Your task to perform on an android device: read, delete, or share a saved page in the chrome app Image 0: 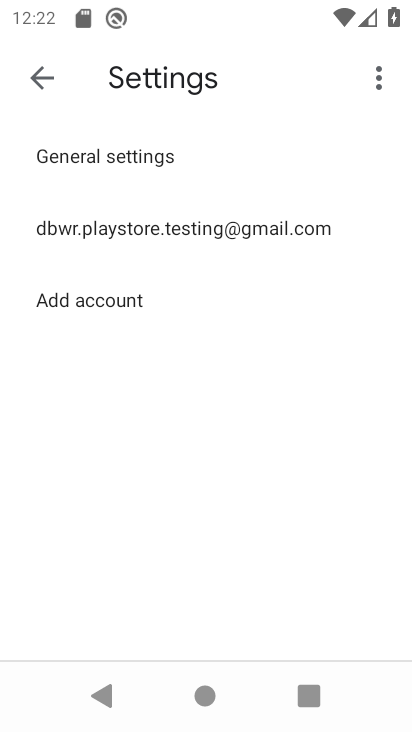
Step 0: press home button
Your task to perform on an android device: read, delete, or share a saved page in the chrome app Image 1: 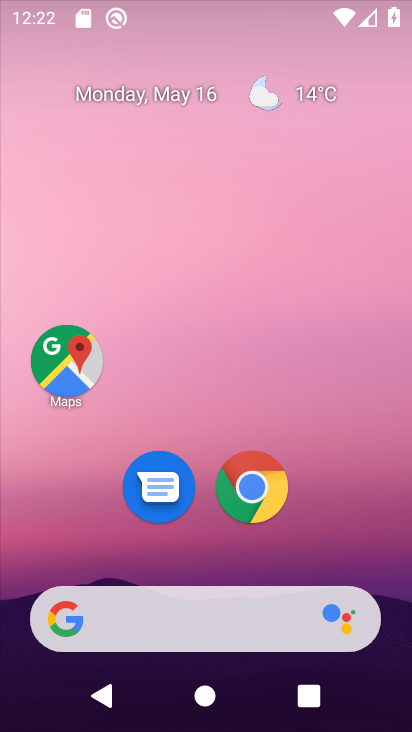
Step 1: drag from (128, 614) to (285, 17)
Your task to perform on an android device: read, delete, or share a saved page in the chrome app Image 2: 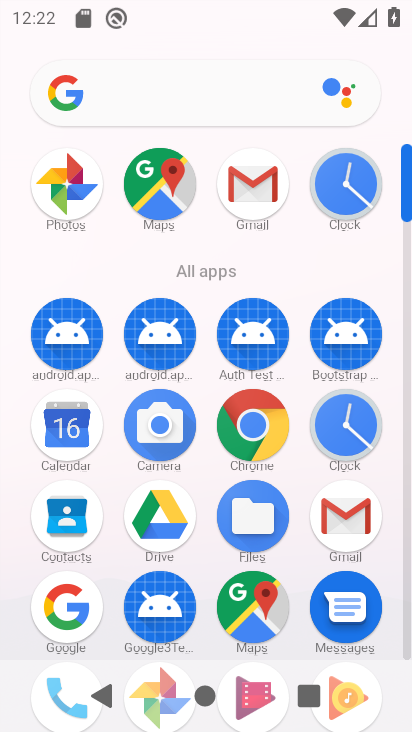
Step 2: click (247, 414)
Your task to perform on an android device: read, delete, or share a saved page in the chrome app Image 3: 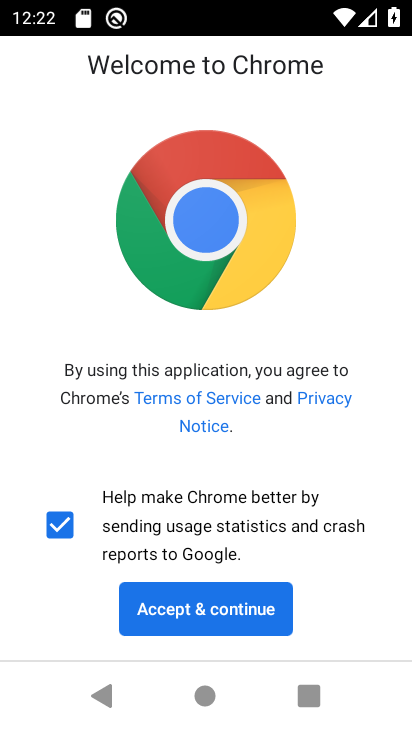
Step 3: click (239, 617)
Your task to perform on an android device: read, delete, or share a saved page in the chrome app Image 4: 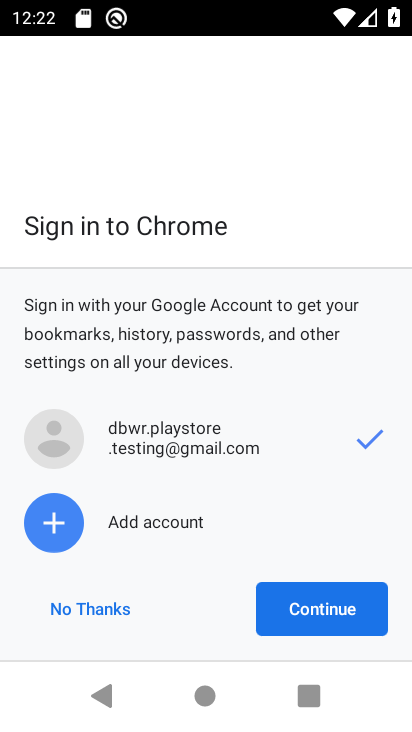
Step 4: click (389, 612)
Your task to perform on an android device: read, delete, or share a saved page in the chrome app Image 5: 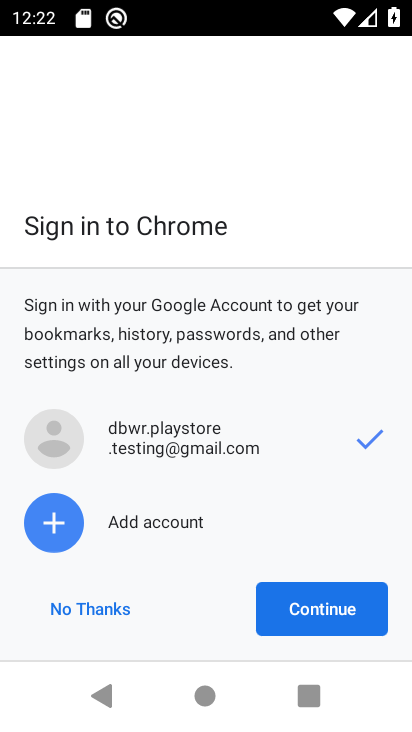
Step 5: click (331, 627)
Your task to perform on an android device: read, delete, or share a saved page in the chrome app Image 6: 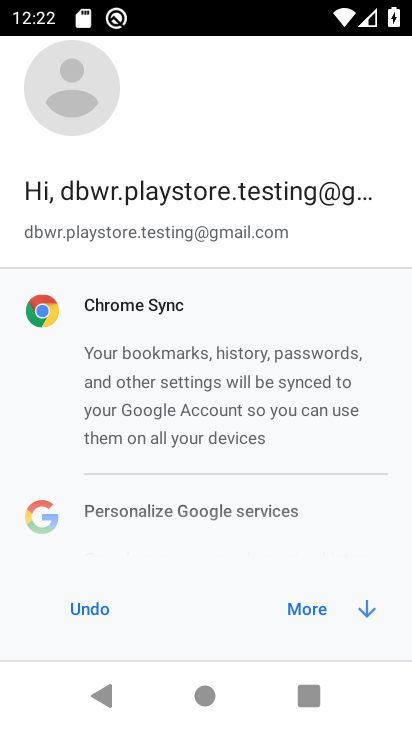
Step 6: click (329, 620)
Your task to perform on an android device: read, delete, or share a saved page in the chrome app Image 7: 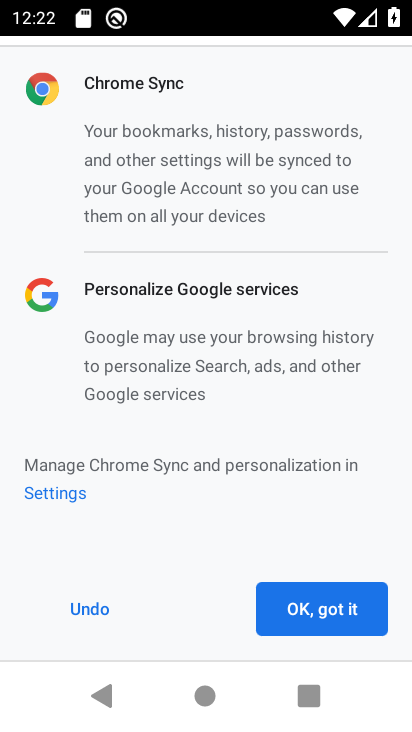
Step 7: click (330, 620)
Your task to perform on an android device: read, delete, or share a saved page in the chrome app Image 8: 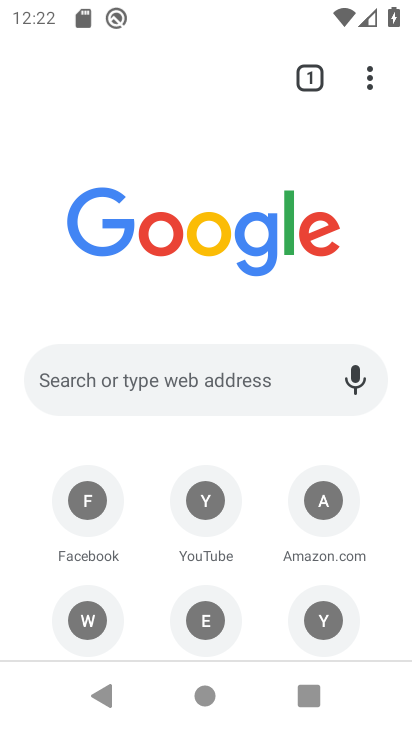
Step 8: drag from (383, 85) to (244, 504)
Your task to perform on an android device: read, delete, or share a saved page in the chrome app Image 9: 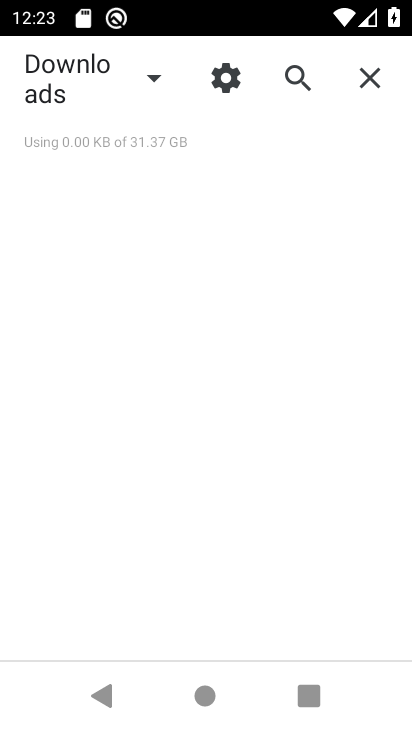
Step 9: click (102, 105)
Your task to perform on an android device: read, delete, or share a saved page in the chrome app Image 10: 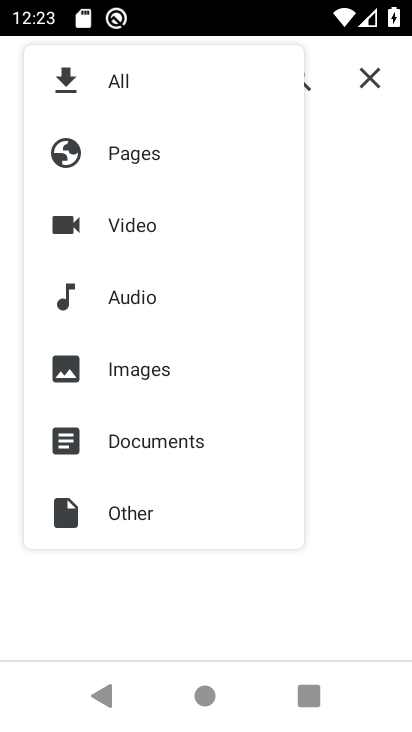
Step 10: click (145, 153)
Your task to perform on an android device: read, delete, or share a saved page in the chrome app Image 11: 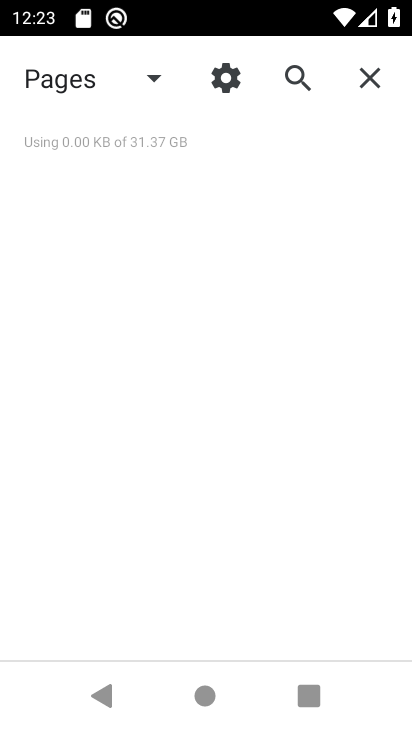
Step 11: task complete